Your task to perform on an android device: Go to battery settings Image 0: 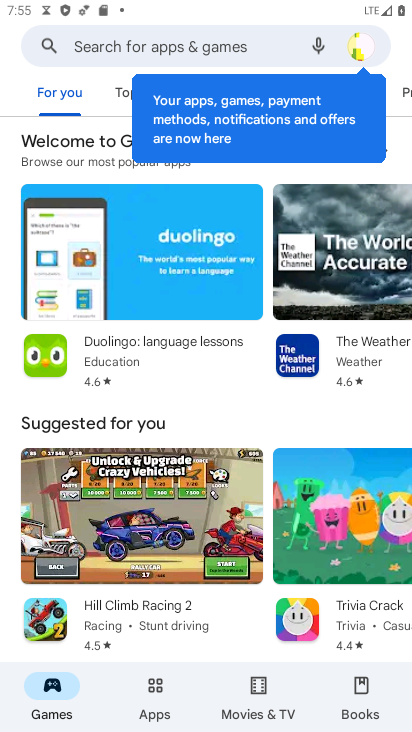
Step 0: press home button
Your task to perform on an android device: Go to battery settings Image 1: 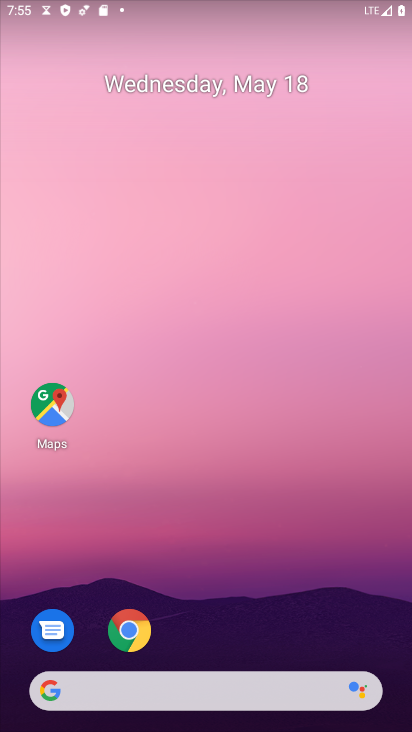
Step 1: drag from (285, 522) to (244, 91)
Your task to perform on an android device: Go to battery settings Image 2: 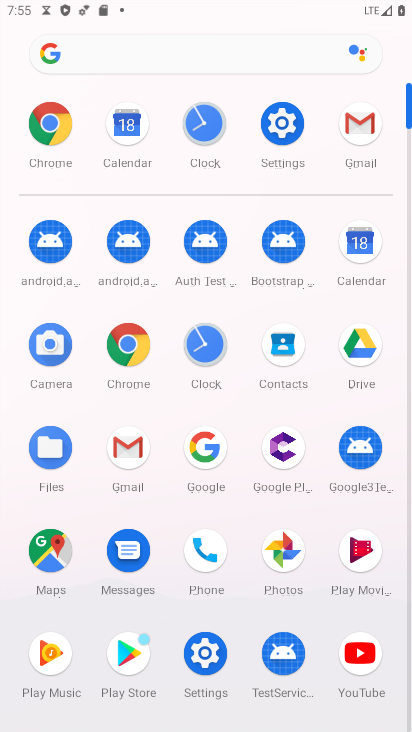
Step 2: click (276, 129)
Your task to perform on an android device: Go to battery settings Image 3: 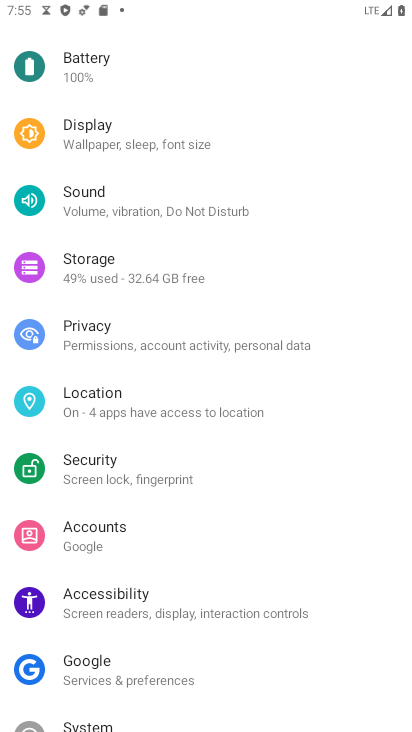
Step 3: click (58, 72)
Your task to perform on an android device: Go to battery settings Image 4: 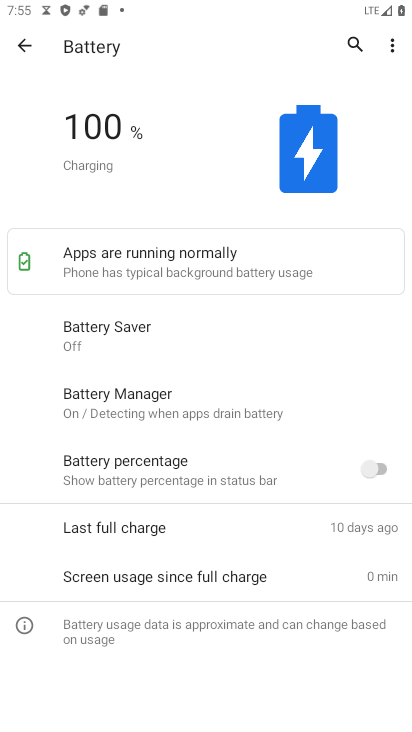
Step 4: task complete